Your task to perform on an android device: clear all cookies in the chrome app Image 0: 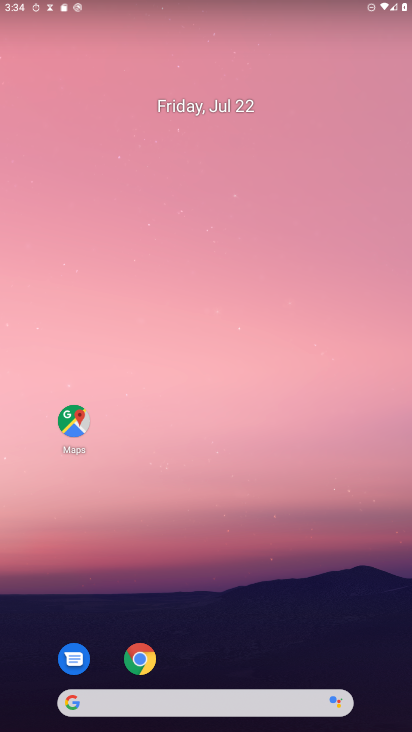
Step 0: drag from (272, 590) to (277, 43)
Your task to perform on an android device: clear all cookies in the chrome app Image 1: 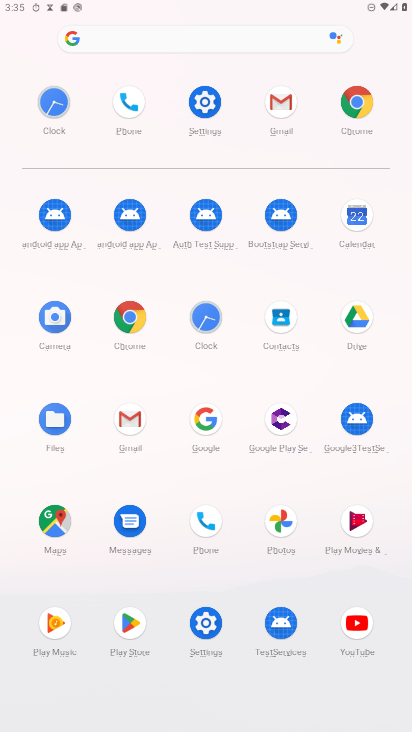
Step 1: click (359, 103)
Your task to perform on an android device: clear all cookies in the chrome app Image 2: 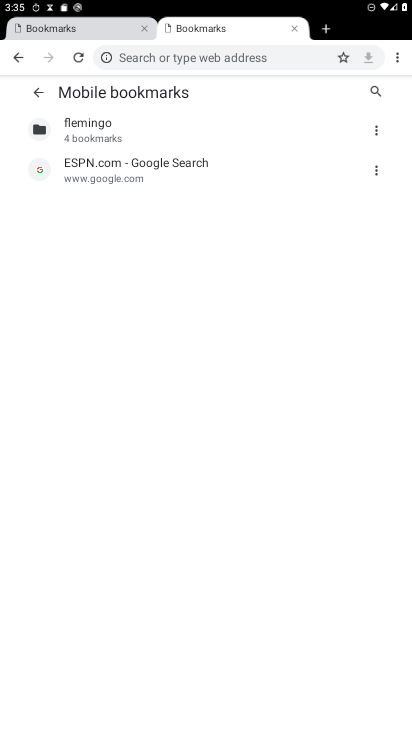
Step 2: drag from (398, 61) to (305, 175)
Your task to perform on an android device: clear all cookies in the chrome app Image 3: 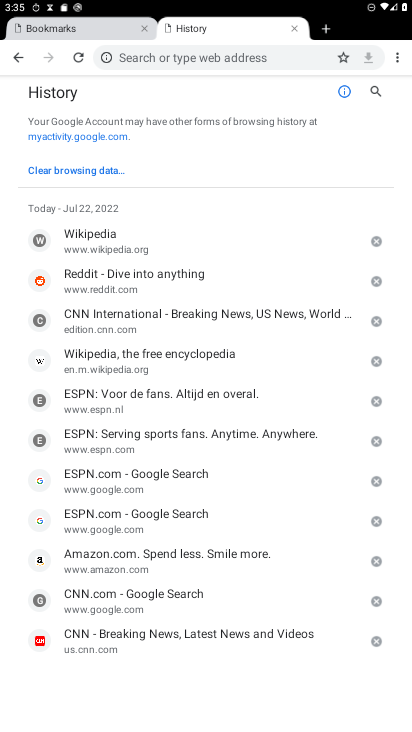
Step 3: click (68, 170)
Your task to perform on an android device: clear all cookies in the chrome app Image 4: 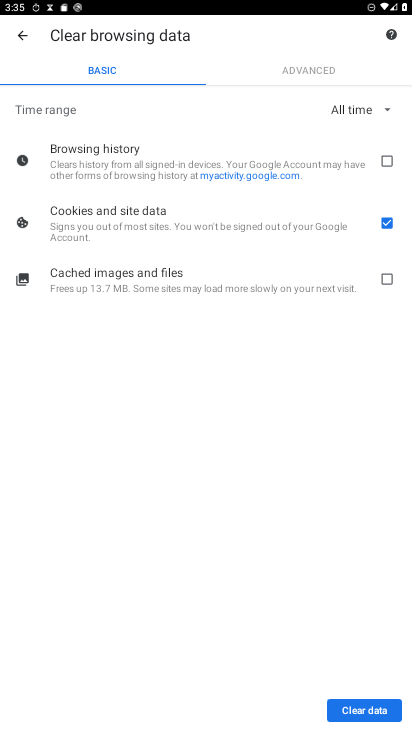
Step 4: click (382, 710)
Your task to perform on an android device: clear all cookies in the chrome app Image 5: 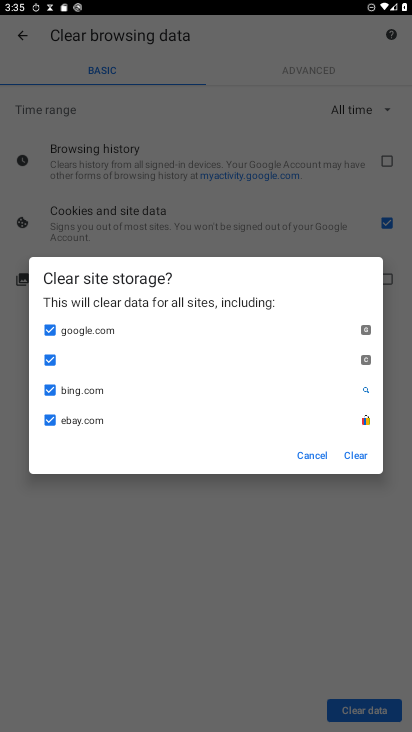
Step 5: click (355, 450)
Your task to perform on an android device: clear all cookies in the chrome app Image 6: 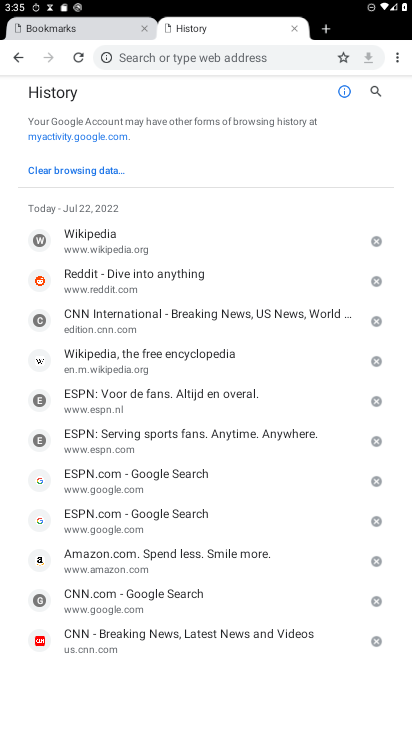
Step 6: task complete